Your task to perform on an android device: see tabs open on other devices in the chrome app Image 0: 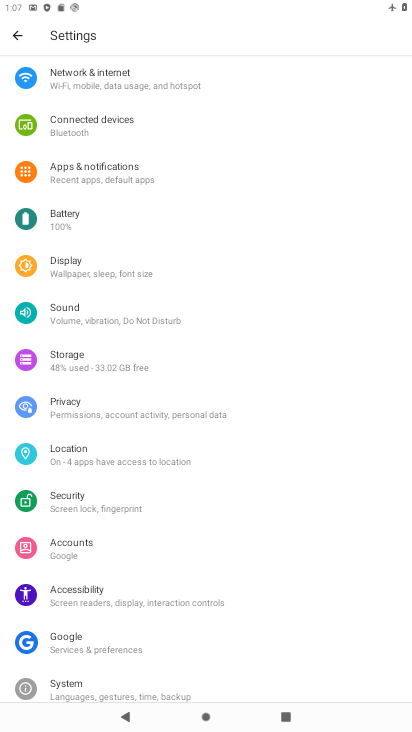
Step 0: press back button
Your task to perform on an android device: see tabs open on other devices in the chrome app Image 1: 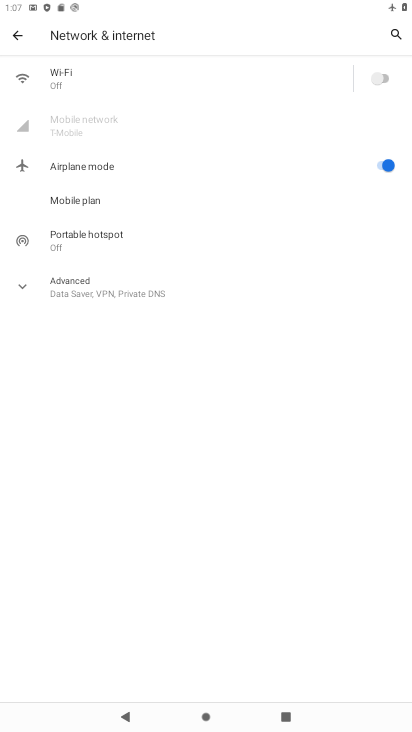
Step 1: press home button
Your task to perform on an android device: see tabs open on other devices in the chrome app Image 2: 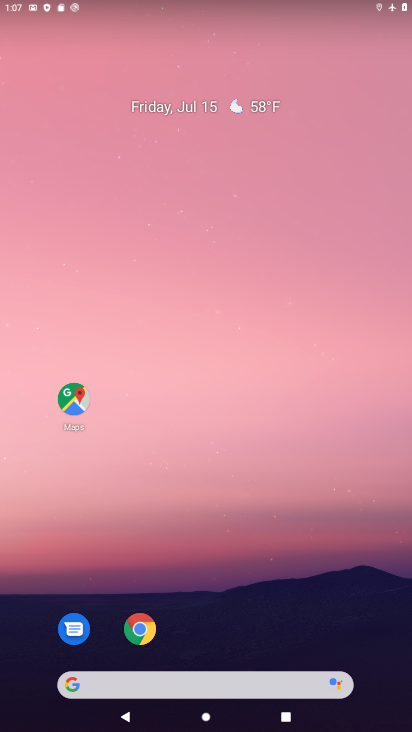
Step 2: click (136, 632)
Your task to perform on an android device: see tabs open on other devices in the chrome app Image 3: 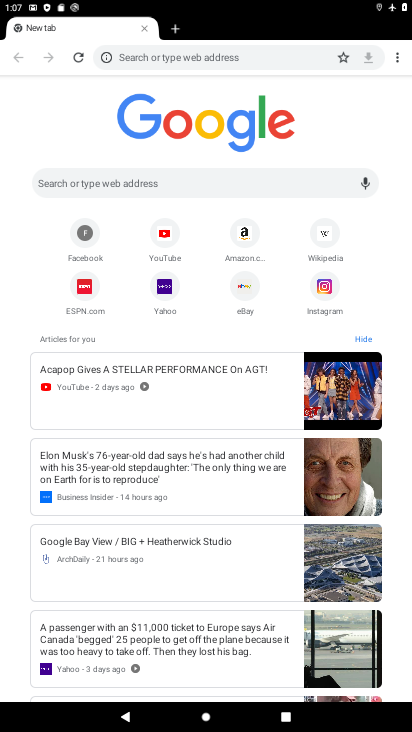
Step 3: click (400, 55)
Your task to perform on an android device: see tabs open on other devices in the chrome app Image 4: 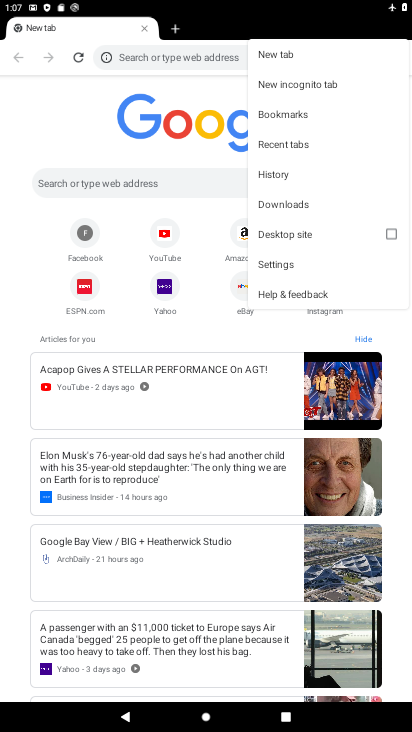
Step 4: click (317, 146)
Your task to perform on an android device: see tabs open on other devices in the chrome app Image 5: 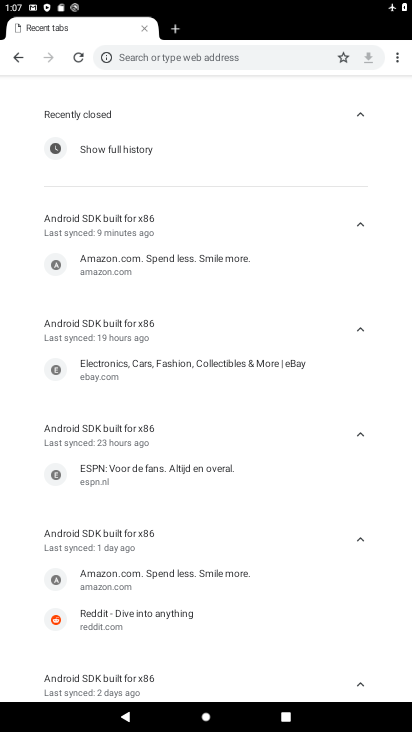
Step 5: task complete